Your task to perform on an android device: delete the emails in spam in the gmail app Image 0: 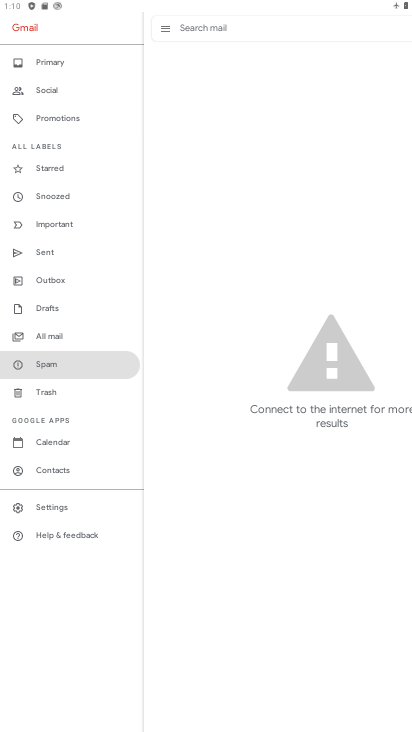
Step 0: click (67, 365)
Your task to perform on an android device: delete the emails in spam in the gmail app Image 1: 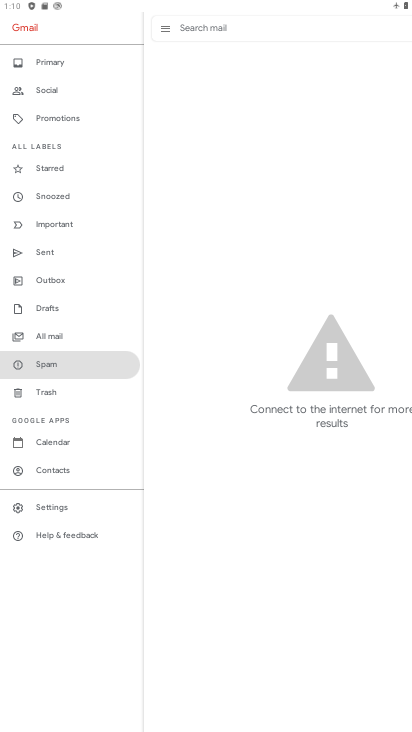
Step 1: task complete